Your task to perform on an android device: Open the phone app and click the voicemail tab. Image 0: 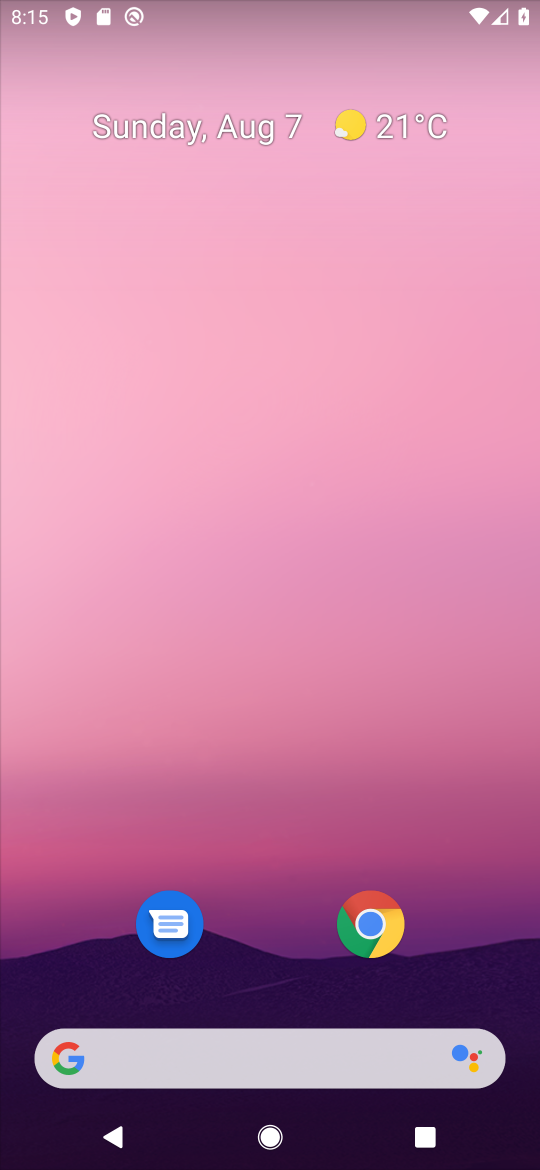
Step 0: drag from (260, 844) to (320, 0)
Your task to perform on an android device: Open the phone app and click the voicemail tab. Image 1: 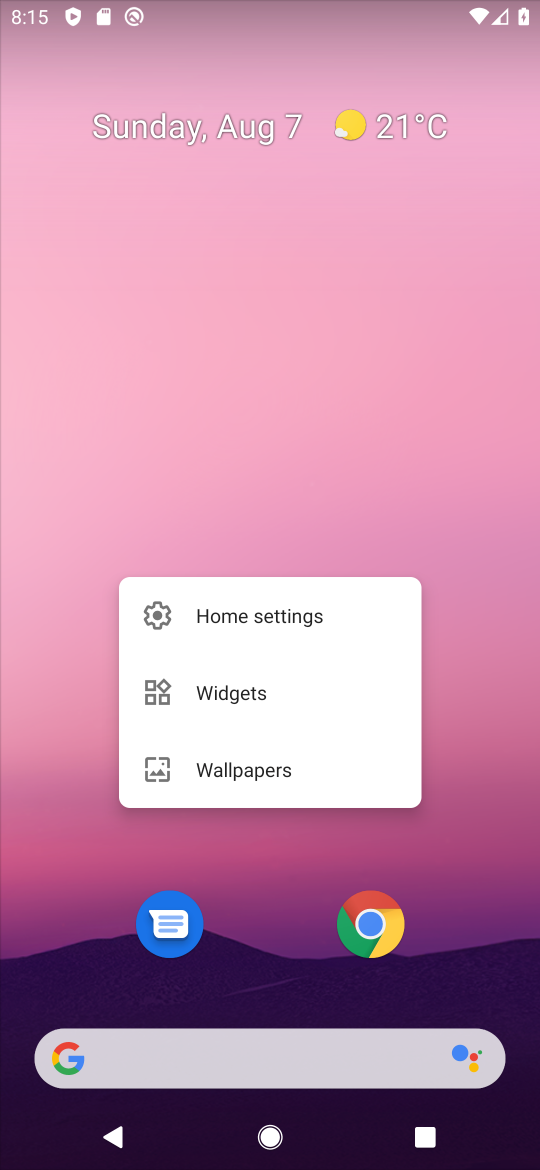
Step 1: click (419, 428)
Your task to perform on an android device: Open the phone app and click the voicemail tab. Image 2: 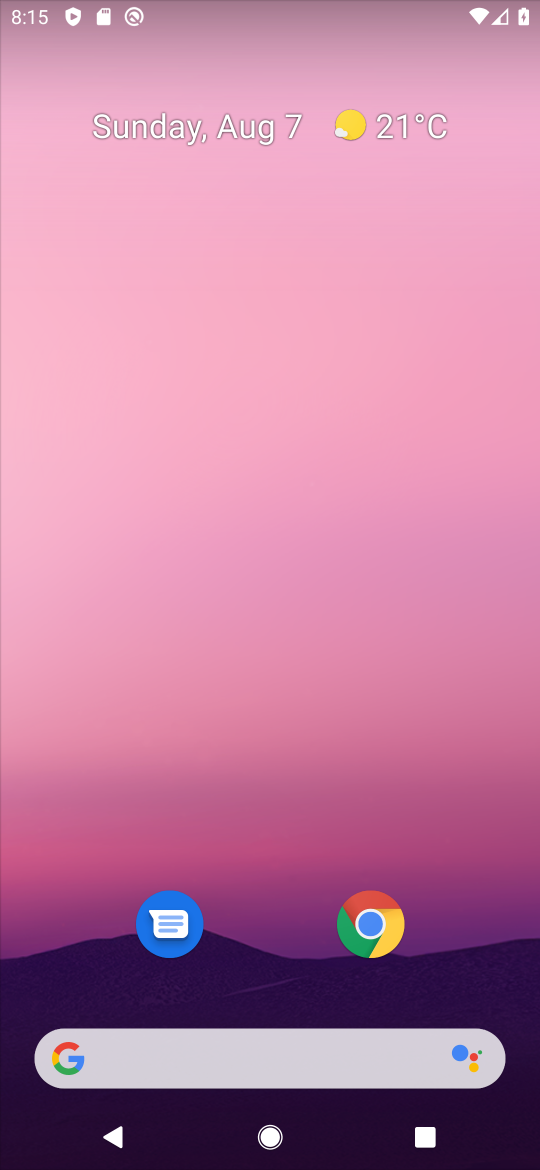
Step 2: drag from (264, 893) to (385, 14)
Your task to perform on an android device: Open the phone app and click the voicemail tab. Image 3: 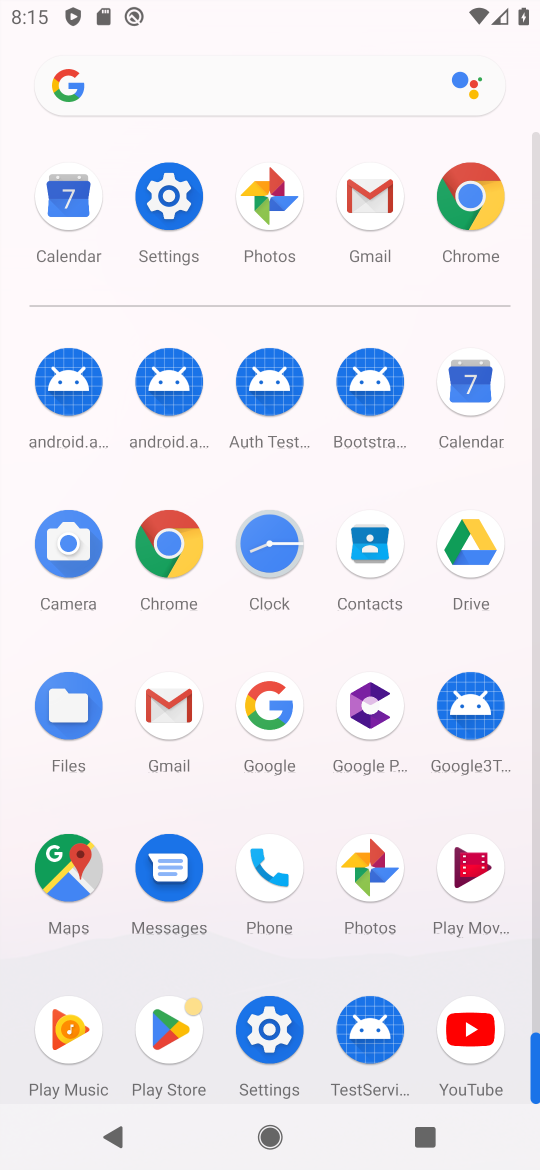
Step 3: click (263, 863)
Your task to perform on an android device: Open the phone app and click the voicemail tab. Image 4: 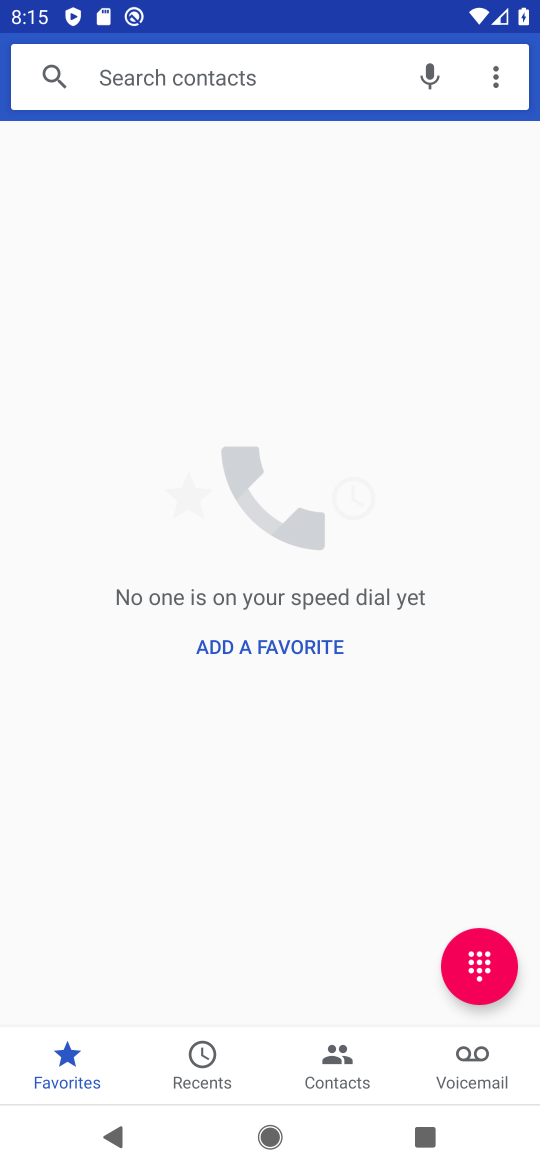
Step 4: click (475, 1057)
Your task to perform on an android device: Open the phone app and click the voicemail tab. Image 5: 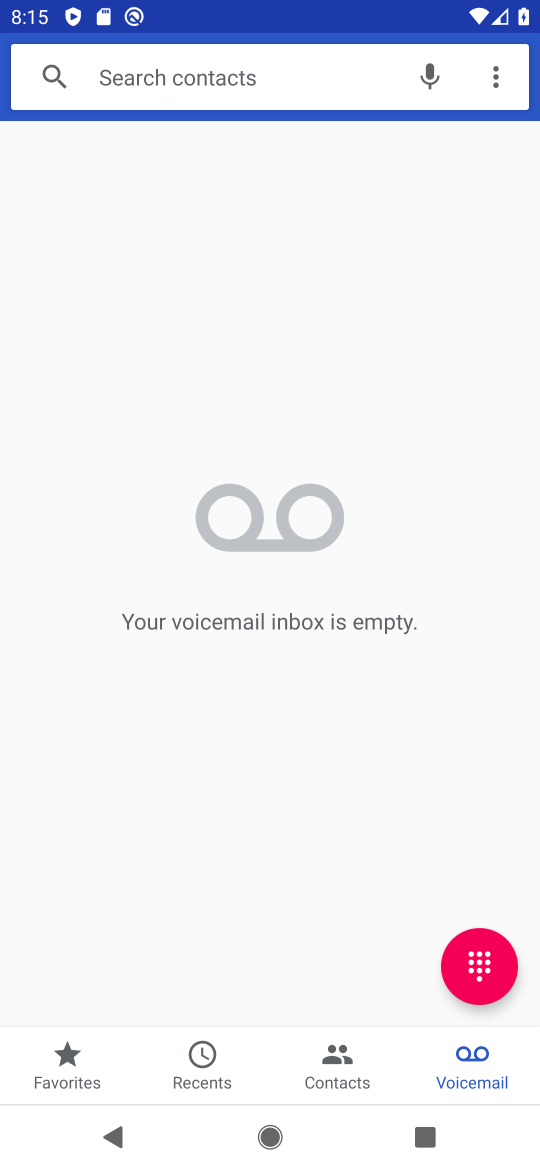
Step 5: task complete